Your task to perform on an android device: move a message to another label in the gmail app Image 0: 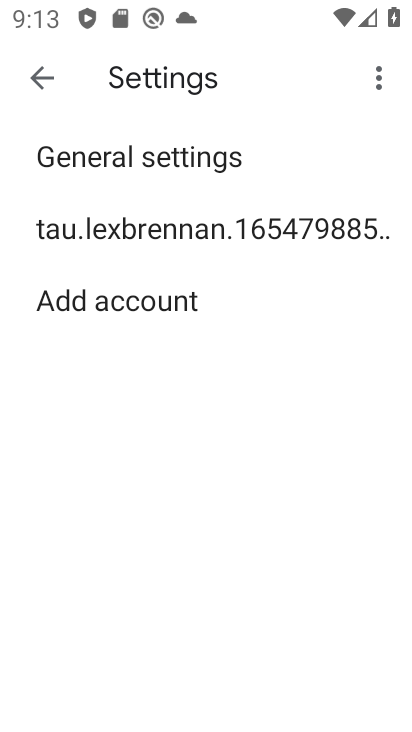
Step 0: press home button
Your task to perform on an android device: move a message to another label in the gmail app Image 1: 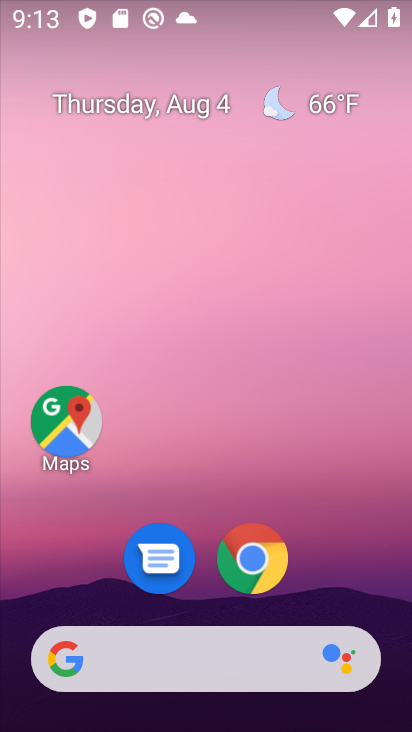
Step 1: drag from (351, 599) to (352, 132)
Your task to perform on an android device: move a message to another label in the gmail app Image 2: 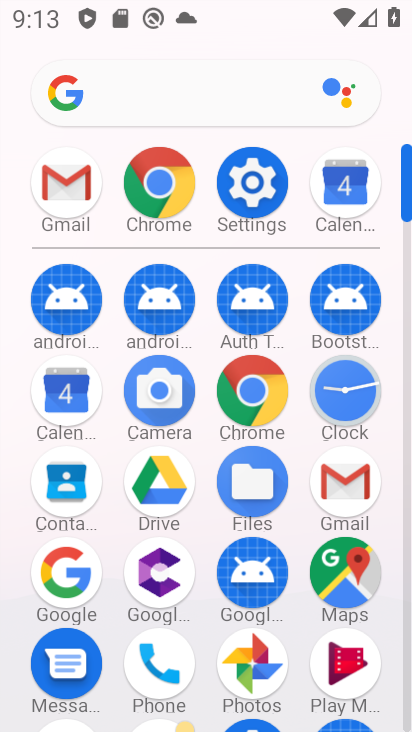
Step 2: click (358, 485)
Your task to perform on an android device: move a message to another label in the gmail app Image 3: 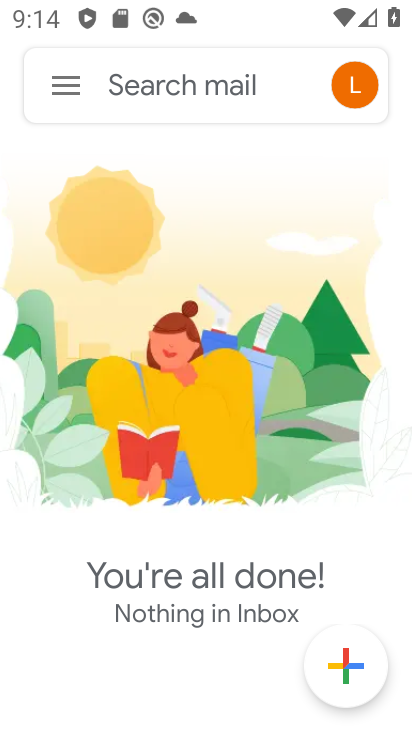
Step 3: click (64, 86)
Your task to perform on an android device: move a message to another label in the gmail app Image 4: 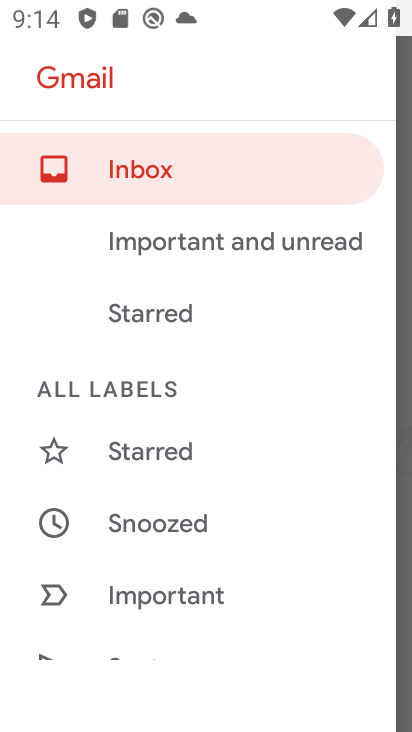
Step 4: drag from (151, 537) to (293, 157)
Your task to perform on an android device: move a message to another label in the gmail app Image 5: 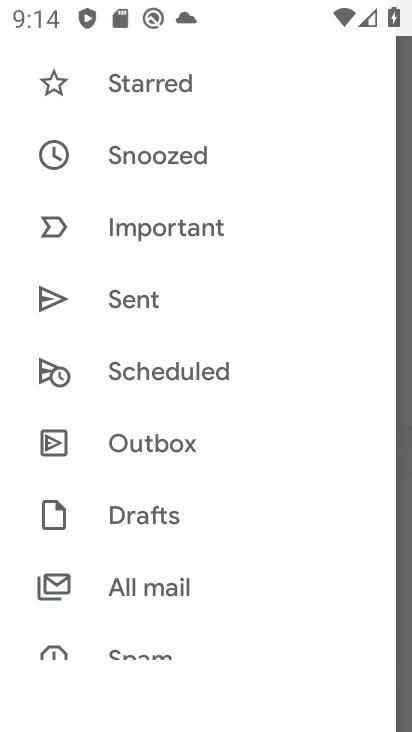
Step 5: drag from (209, 537) to (318, 254)
Your task to perform on an android device: move a message to another label in the gmail app Image 6: 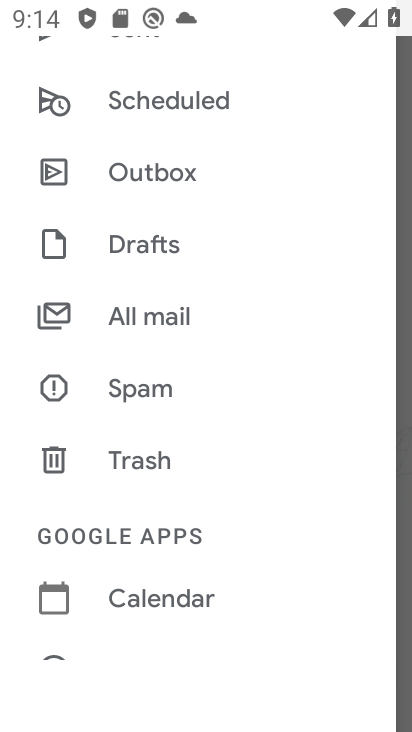
Step 6: drag from (231, 616) to (349, 305)
Your task to perform on an android device: move a message to another label in the gmail app Image 7: 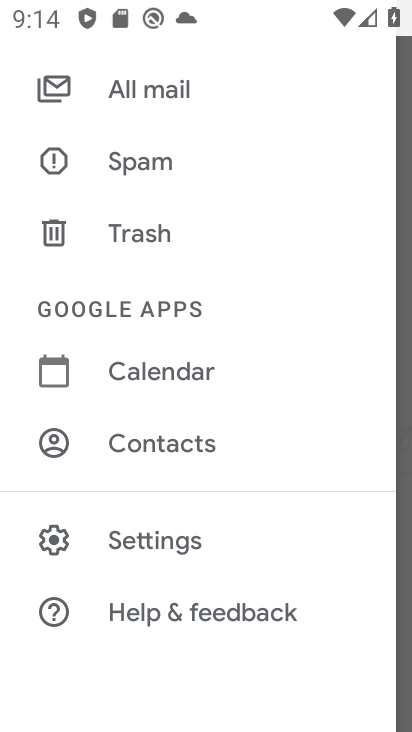
Step 7: click (121, 98)
Your task to perform on an android device: move a message to another label in the gmail app Image 8: 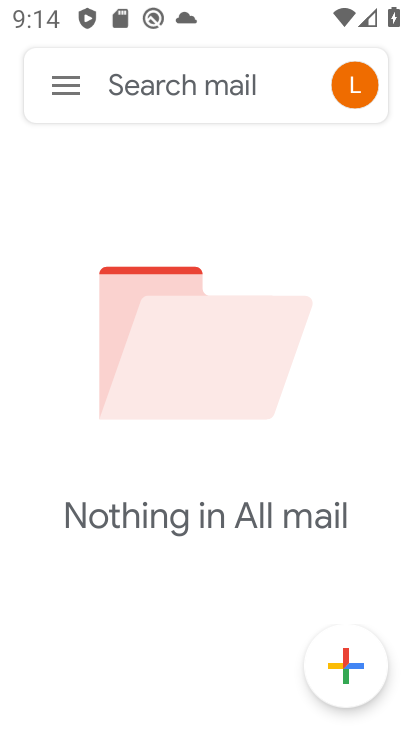
Step 8: task complete